Your task to perform on an android device: Open the map Image 0: 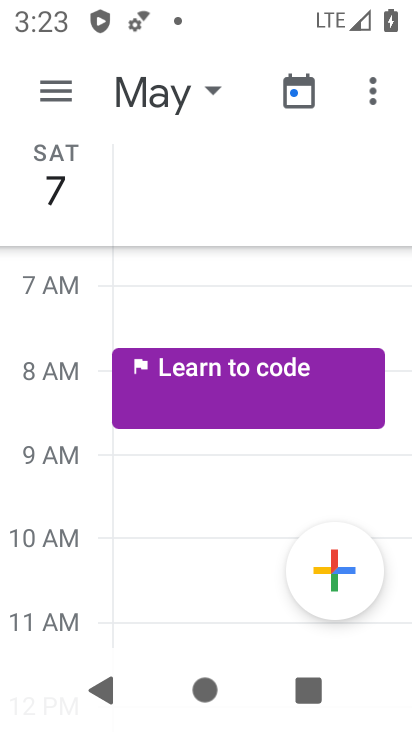
Step 0: press back button
Your task to perform on an android device: Open the map Image 1: 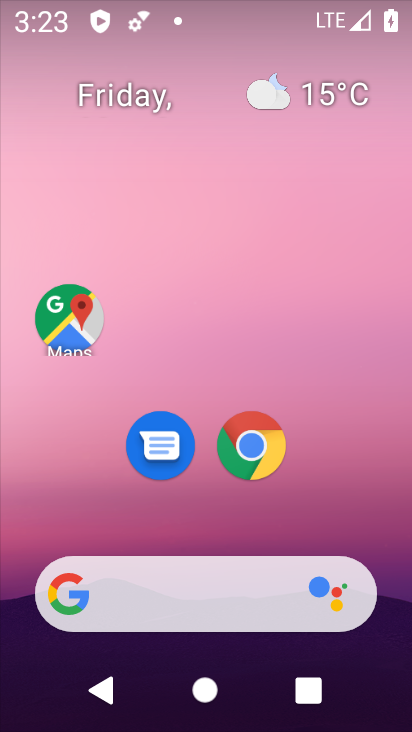
Step 1: click (83, 339)
Your task to perform on an android device: Open the map Image 2: 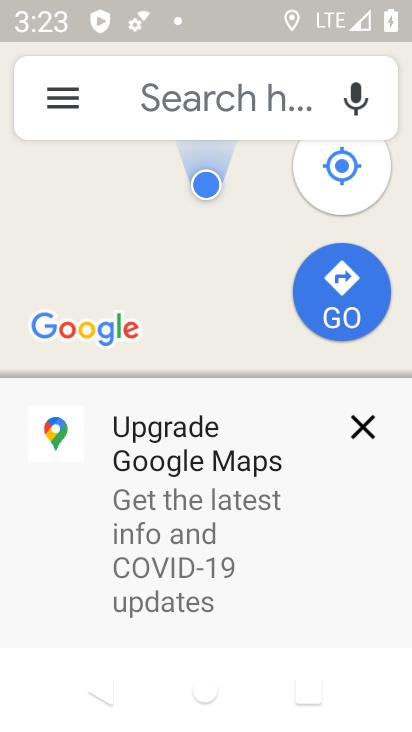
Step 2: click (362, 432)
Your task to perform on an android device: Open the map Image 3: 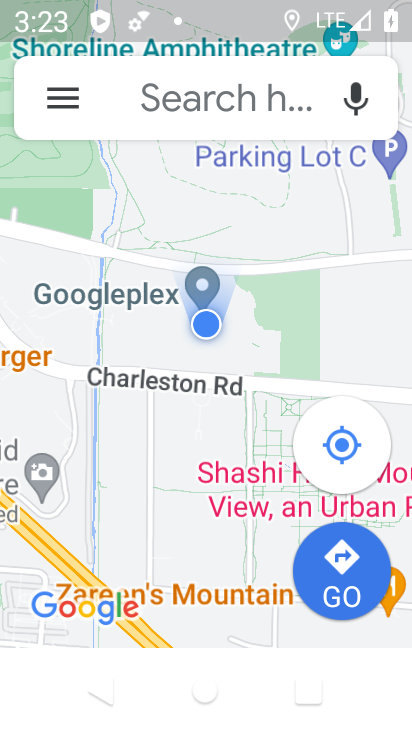
Step 3: task complete